Your task to perform on an android device: Open the web browser Image 0: 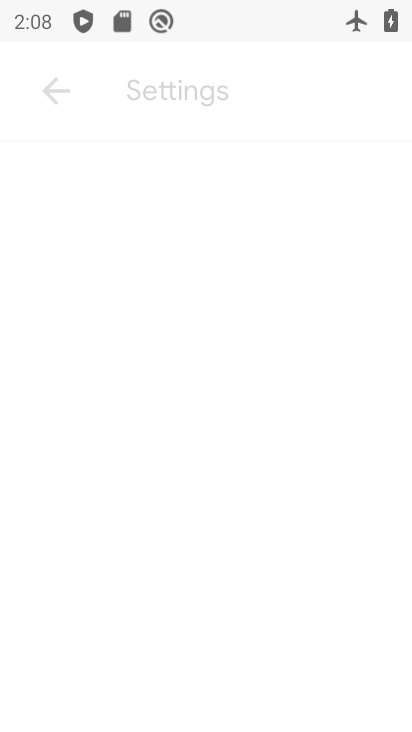
Step 0: drag from (330, 574) to (402, 506)
Your task to perform on an android device: Open the web browser Image 1: 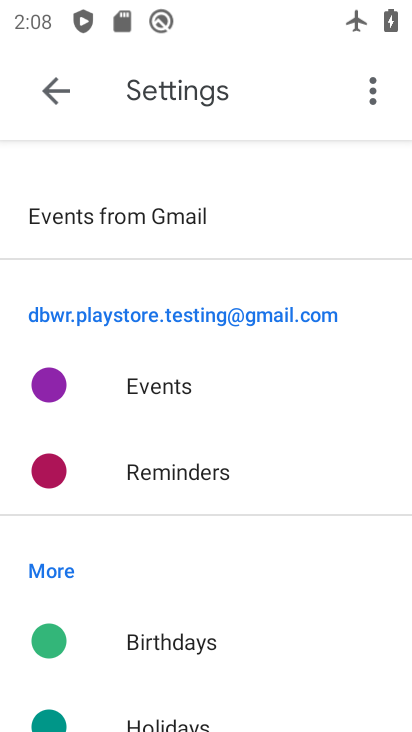
Step 1: press home button
Your task to perform on an android device: Open the web browser Image 2: 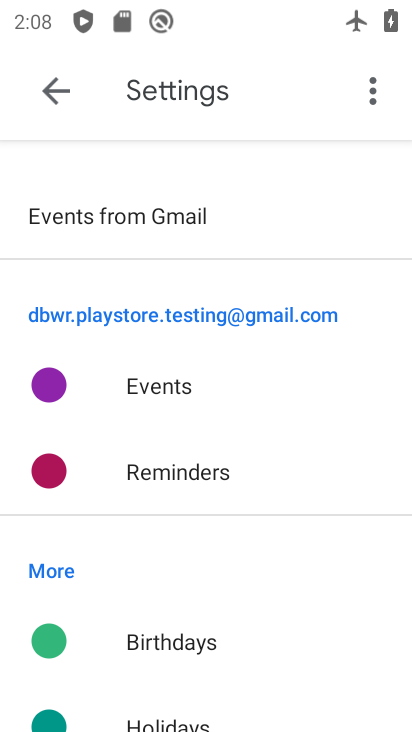
Step 2: click (406, 532)
Your task to perform on an android device: Open the web browser Image 3: 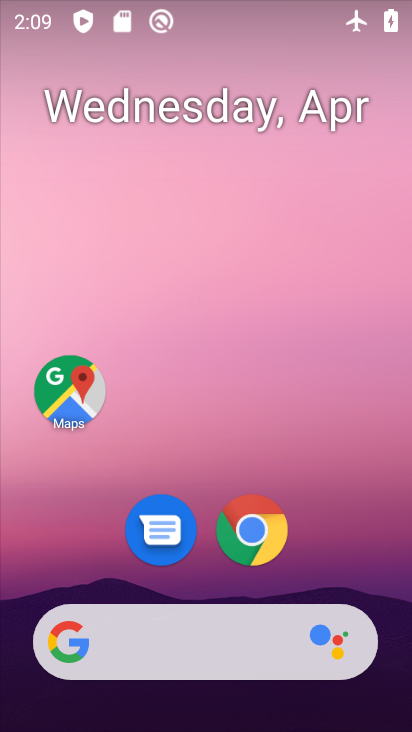
Step 3: drag from (328, 547) to (273, 136)
Your task to perform on an android device: Open the web browser Image 4: 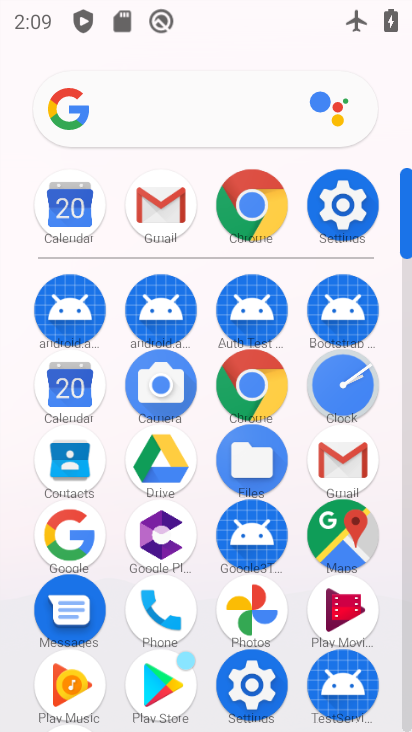
Step 4: click (245, 380)
Your task to perform on an android device: Open the web browser Image 5: 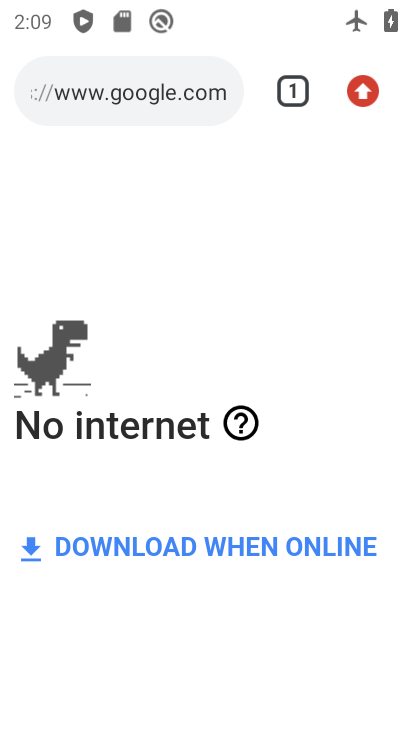
Step 5: task complete